Your task to perform on an android device: show emergency info Image 0: 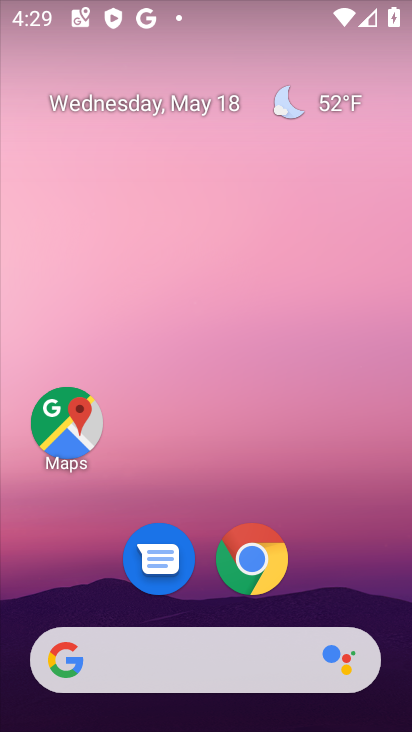
Step 0: drag from (217, 510) to (283, 56)
Your task to perform on an android device: show emergency info Image 1: 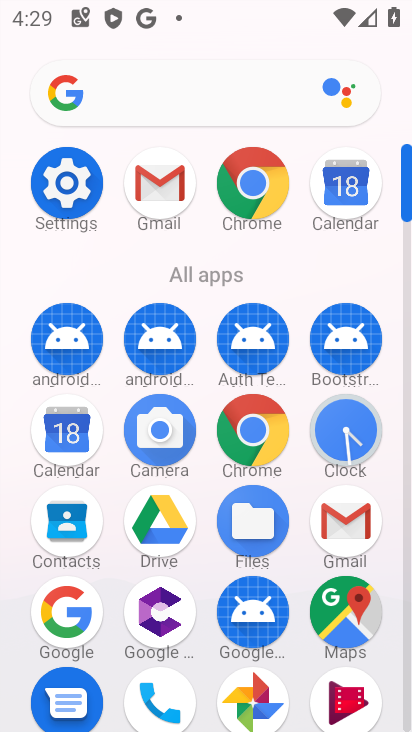
Step 1: click (66, 175)
Your task to perform on an android device: show emergency info Image 2: 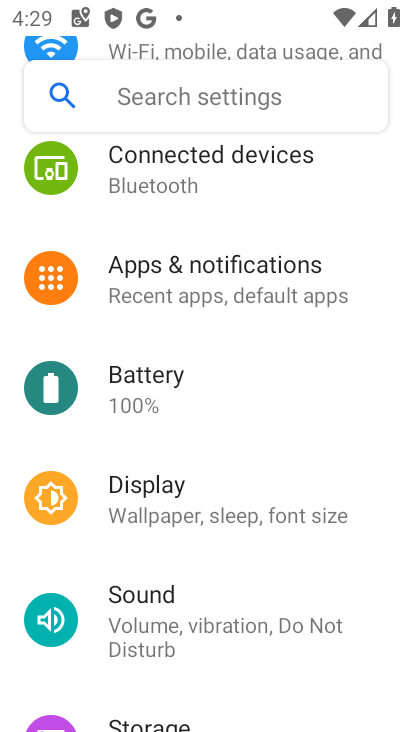
Step 2: drag from (190, 611) to (287, 153)
Your task to perform on an android device: show emergency info Image 3: 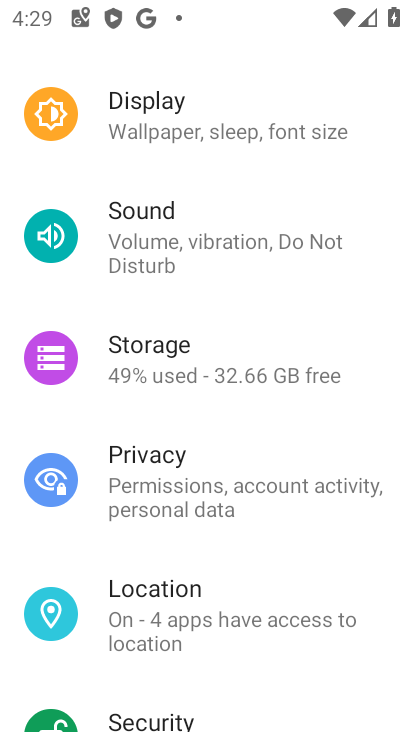
Step 3: drag from (228, 696) to (294, 216)
Your task to perform on an android device: show emergency info Image 4: 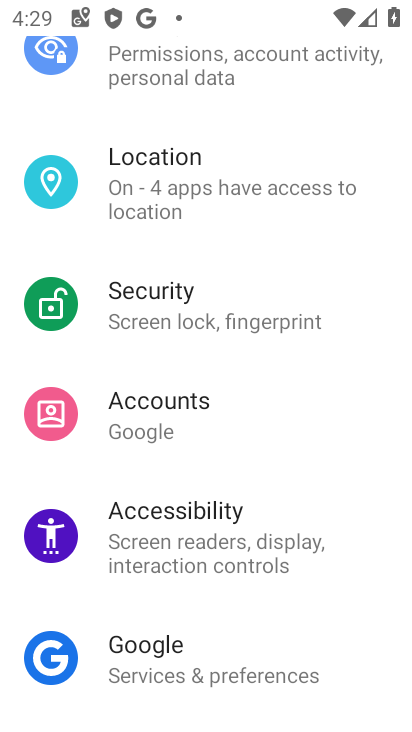
Step 4: drag from (130, 672) to (173, 169)
Your task to perform on an android device: show emergency info Image 5: 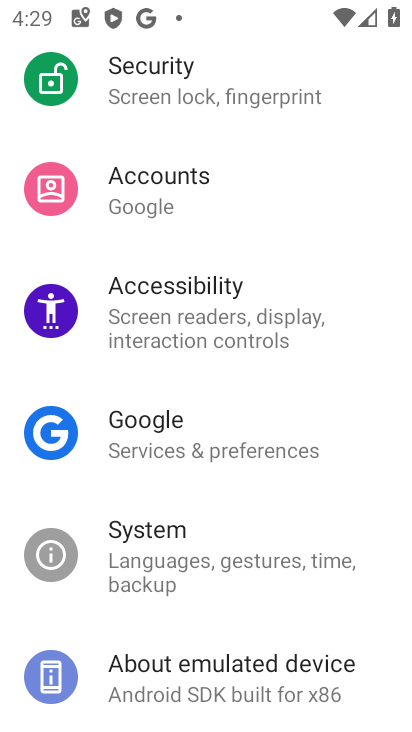
Step 5: click (191, 675)
Your task to perform on an android device: show emergency info Image 6: 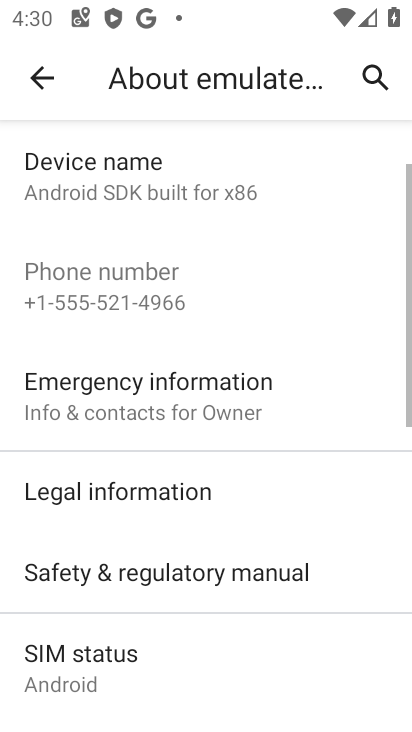
Step 6: click (170, 384)
Your task to perform on an android device: show emergency info Image 7: 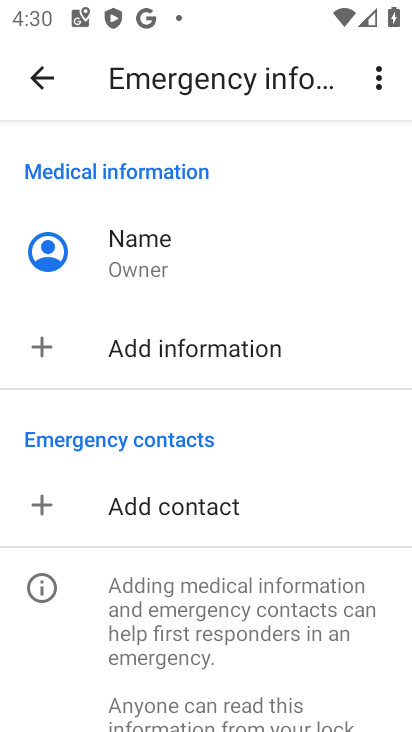
Step 7: task complete